Your task to perform on an android device: Play the last video I watched on Youtube Image 0: 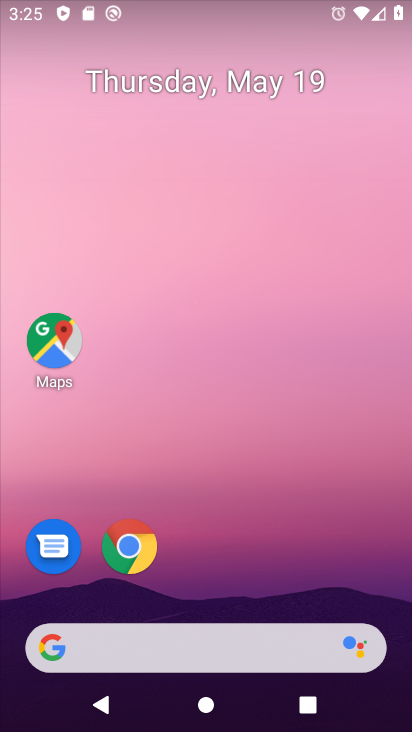
Step 0: drag from (216, 589) to (238, 26)
Your task to perform on an android device: Play the last video I watched on Youtube Image 1: 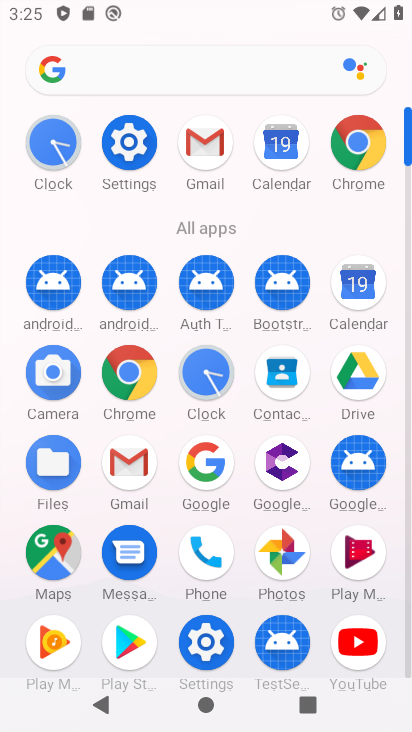
Step 1: click (355, 636)
Your task to perform on an android device: Play the last video I watched on Youtube Image 2: 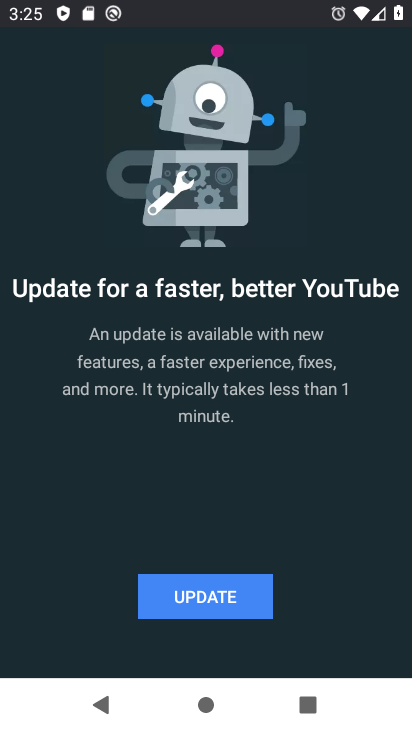
Step 2: click (208, 591)
Your task to perform on an android device: Play the last video I watched on Youtube Image 3: 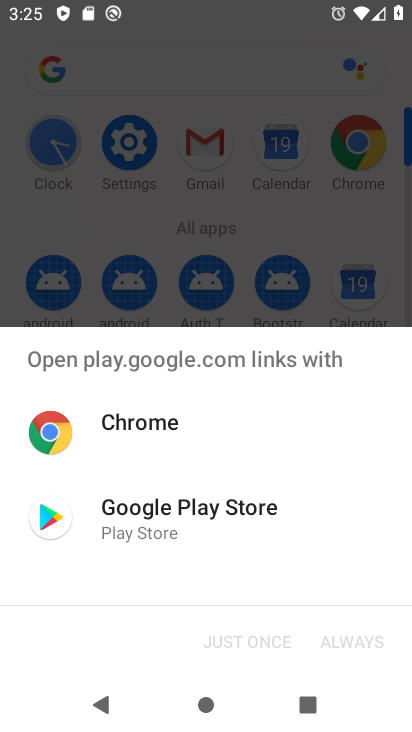
Step 3: click (178, 517)
Your task to perform on an android device: Play the last video I watched on Youtube Image 4: 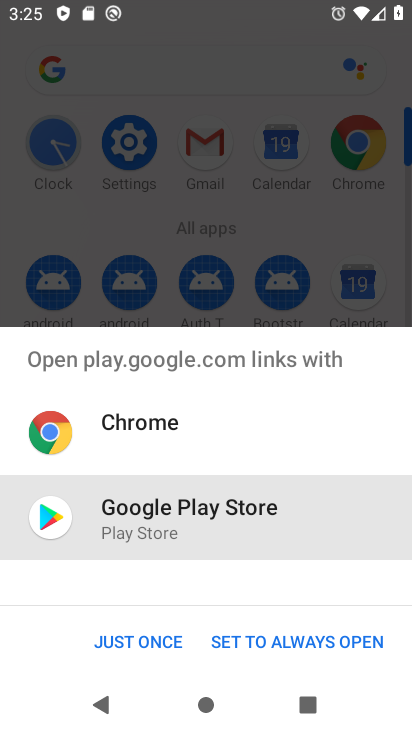
Step 4: click (134, 642)
Your task to perform on an android device: Play the last video I watched on Youtube Image 5: 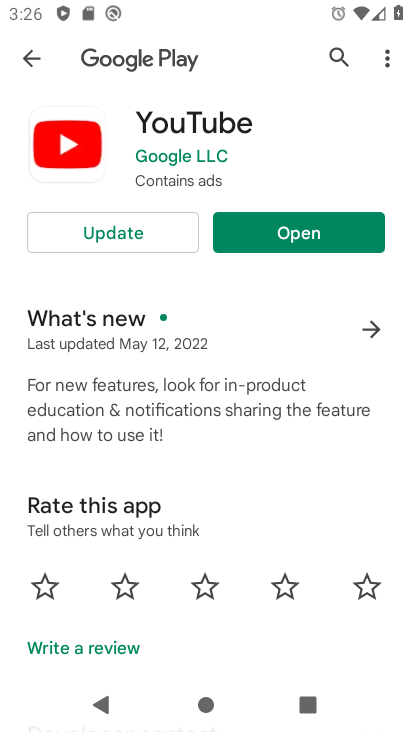
Step 5: click (111, 225)
Your task to perform on an android device: Play the last video I watched on Youtube Image 6: 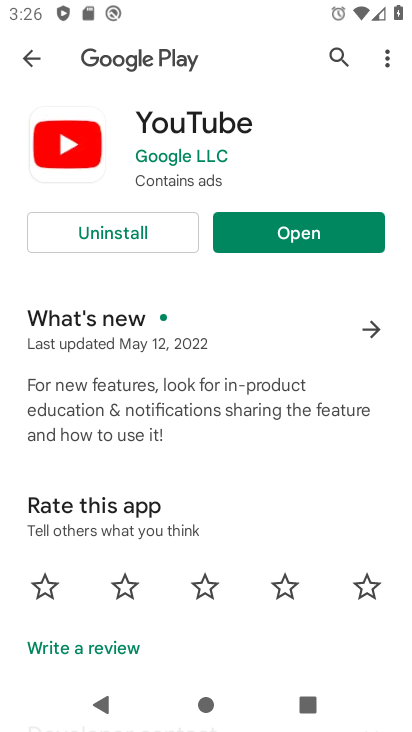
Step 6: click (299, 231)
Your task to perform on an android device: Play the last video I watched on Youtube Image 7: 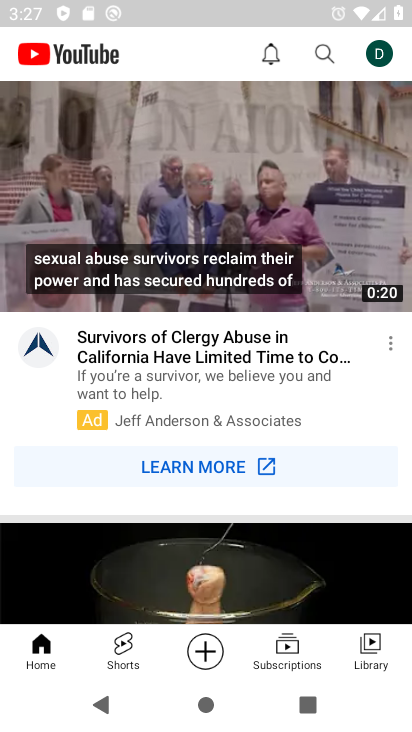
Step 7: click (371, 643)
Your task to perform on an android device: Play the last video I watched on Youtube Image 8: 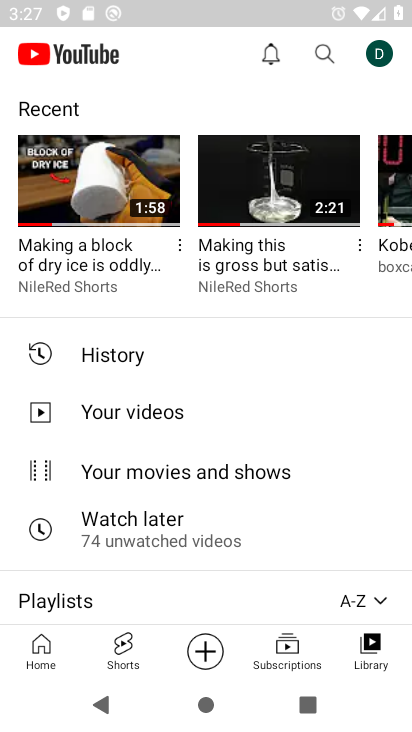
Step 8: click (83, 185)
Your task to perform on an android device: Play the last video I watched on Youtube Image 9: 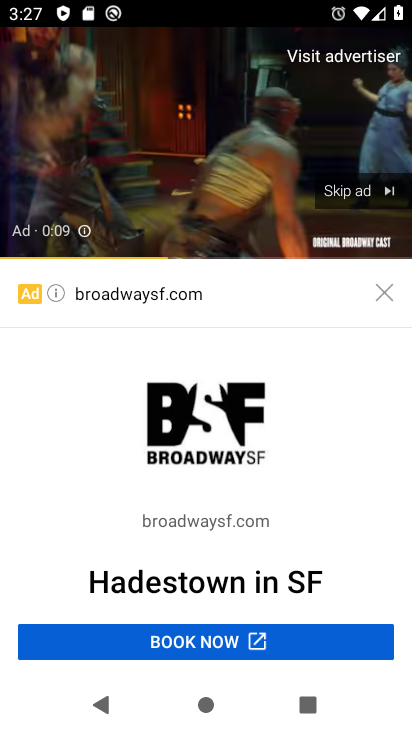
Step 9: click (358, 188)
Your task to perform on an android device: Play the last video I watched on Youtube Image 10: 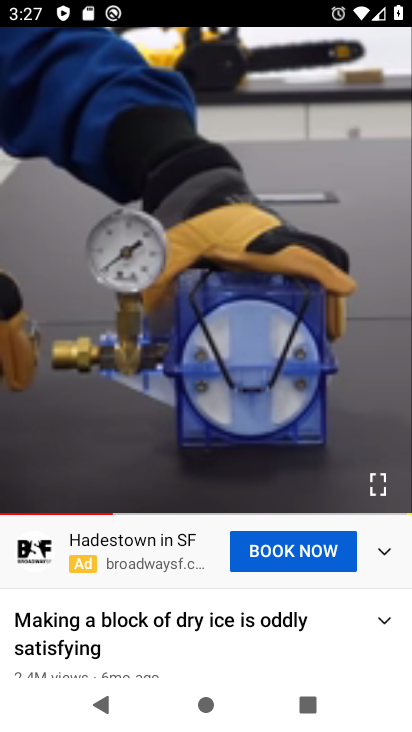
Step 10: task complete